Your task to perform on an android device: Turn on the flashlight Image 0: 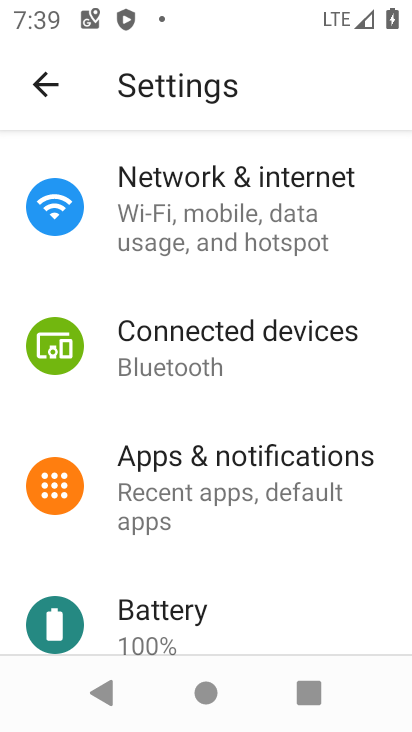
Step 0: click (265, 390)
Your task to perform on an android device: Turn on the flashlight Image 1: 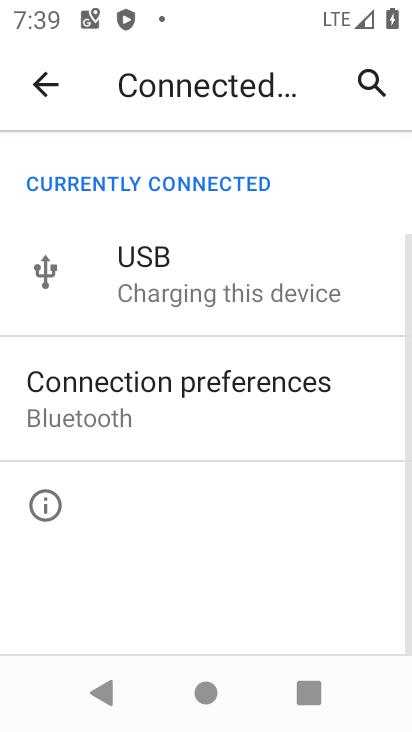
Step 1: click (64, 95)
Your task to perform on an android device: Turn on the flashlight Image 2: 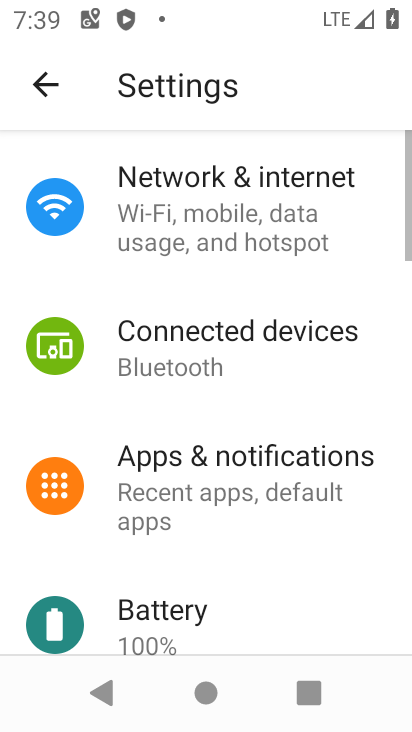
Step 2: task complete